Your task to perform on an android device: Search for Mexican restaurants on Maps Image 0: 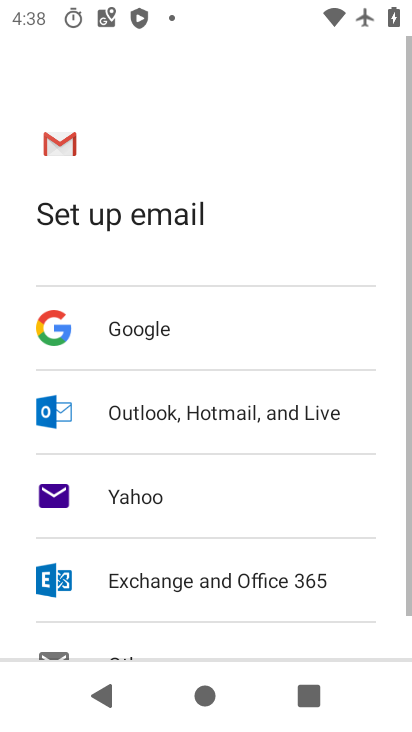
Step 0: press home button
Your task to perform on an android device: Search for Mexican restaurants on Maps Image 1: 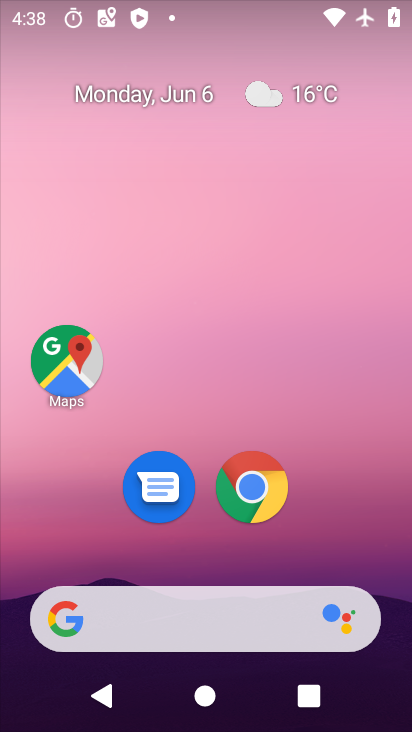
Step 1: click (62, 361)
Your task to perform on an android device: Search for Mexican restaurants on Maps Image 2: 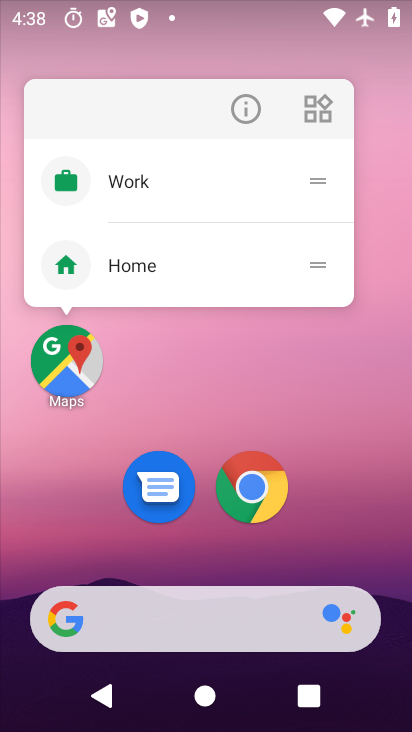
Step 2: click (62, 360)
Your task to perform on an android device: Search for Mexican restaurants on Maps Image 3: 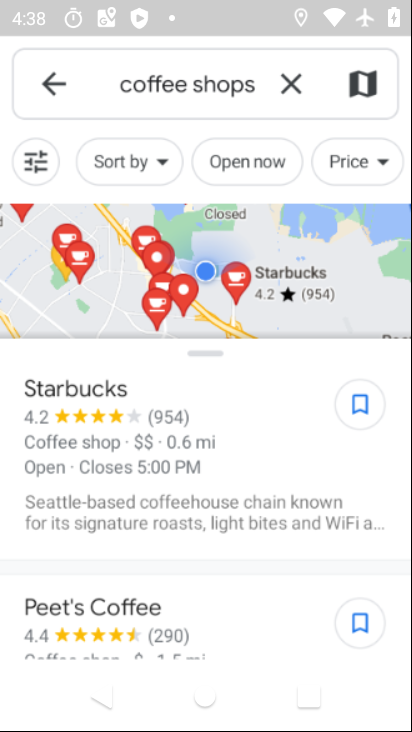
Step 3: click (209, 84)
Your task to perform on an android device: Search for Mexican restaurants on Maps Image 4: 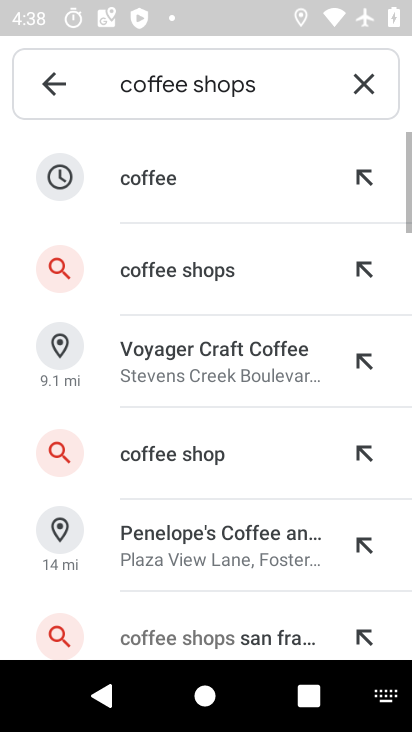
Step 4: click (361, 77)
Your task to perform on an android device: Search for Mexican restaurants on Maps Image 5: 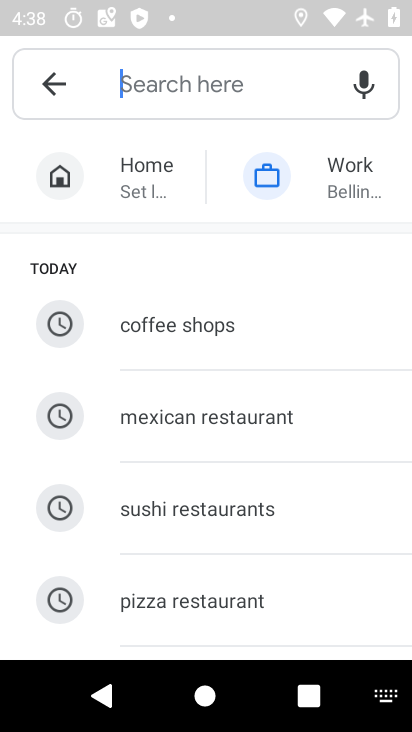
Step 5: type "Mexican restaurants"
Your task to perform on an android device: Search for Mexican restaurants on Maps Image 6: 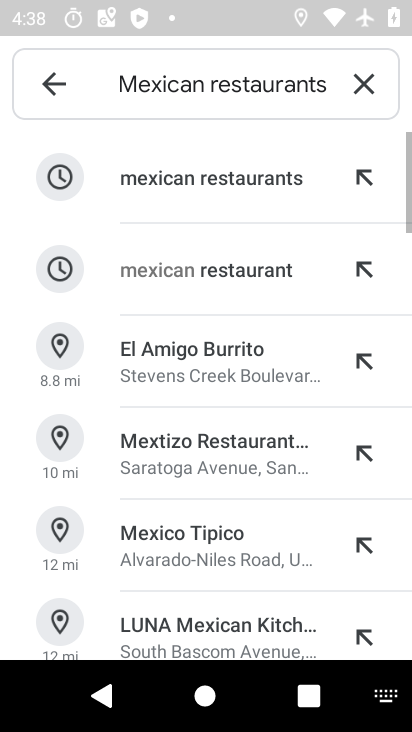
Step 6: click (258, 185)
Your task to perform on an android device: Search for Mexican restaurants on Maps Image 7: 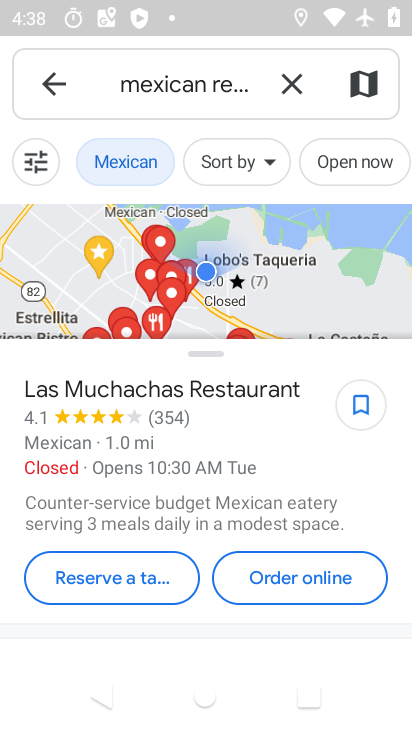
Step 7: task complete